Your task to perform on an android device: see creations saved in the google photos Image 0: 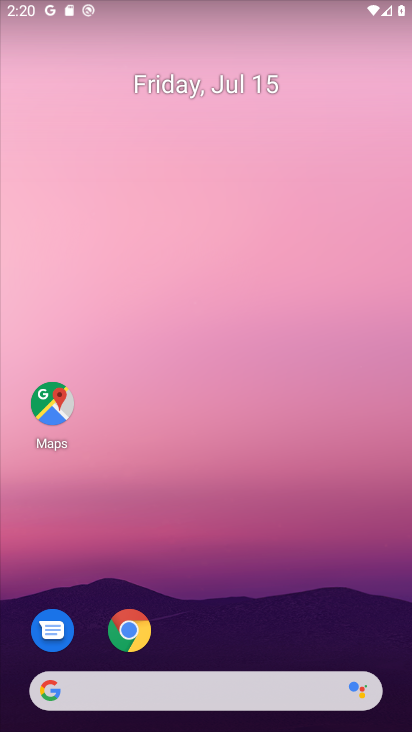
Step 0: drag from (263, 679) to (30, 476)
Your task to perform on an android device: see creations saved in the google photos Image 1: 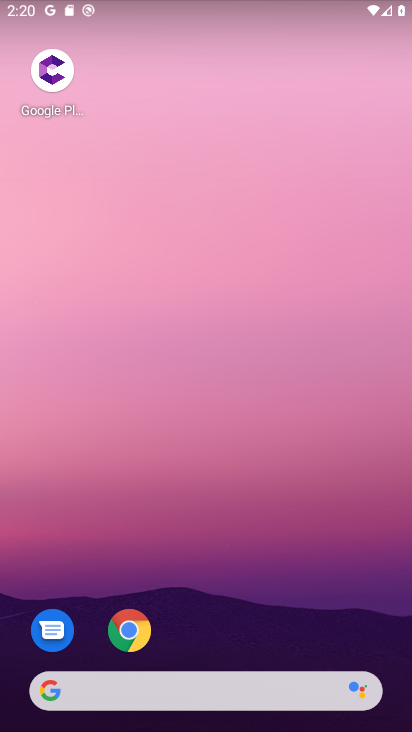
Step 1: drag from (212, 688) to (123, 79)
Your task to perform on an android device: see creations saved in the google photos Image 2: 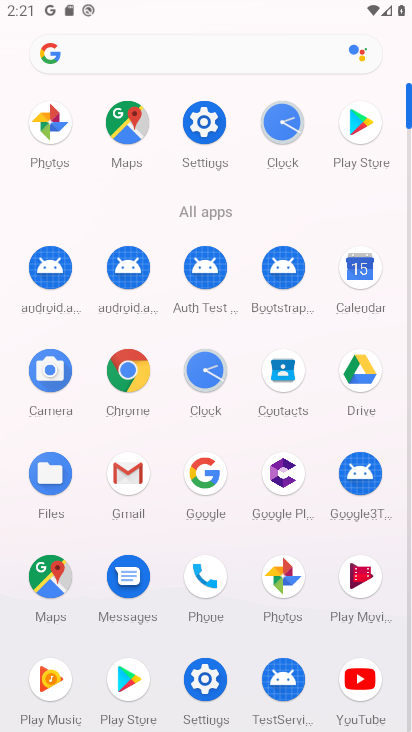
Step 2: click (266, 600)
Your task to perform on an android device: see creations saved in the google photos Image 3: 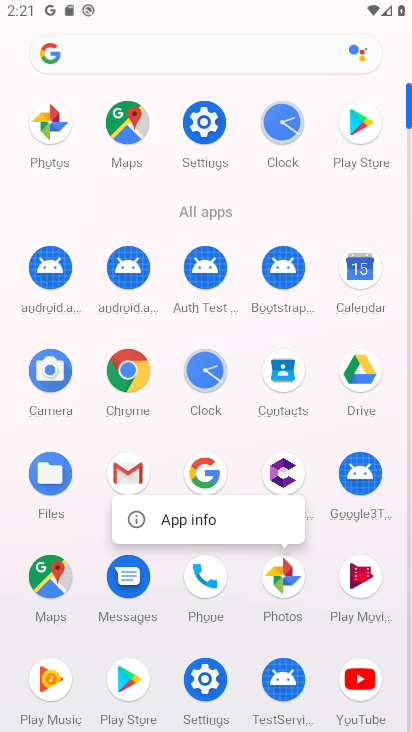
Step 3: click (277, 594)
Your task to perform on an android device: see creations saved in the google photos Image 4: 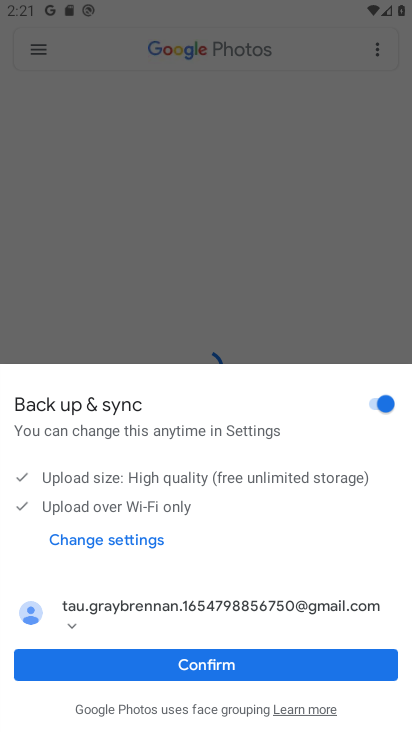
Step 4: click (200, 665)
Your task to perform on an android device: see creations saved in the google photos Image 5: 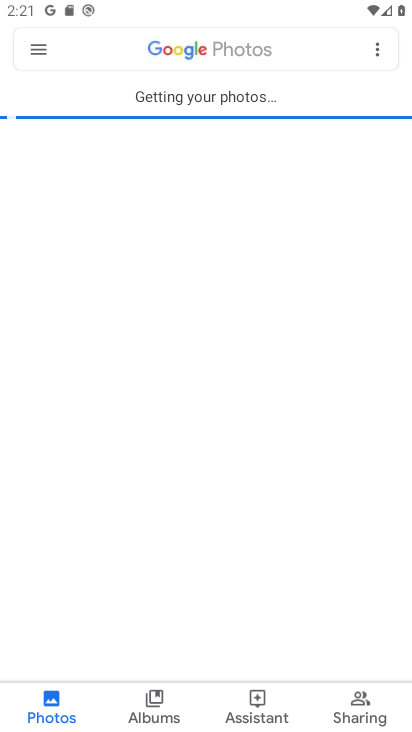
Step 5: click (253, 693)
Your task to perform on an android device: see creations saved in the google photos Image 6: 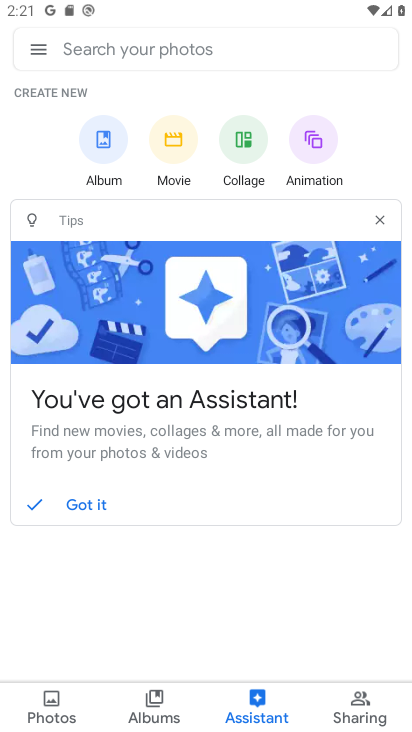
Step 6: task complete